Your task to perform on an android device: see tabs open on other devices in the chrome app Image 0: 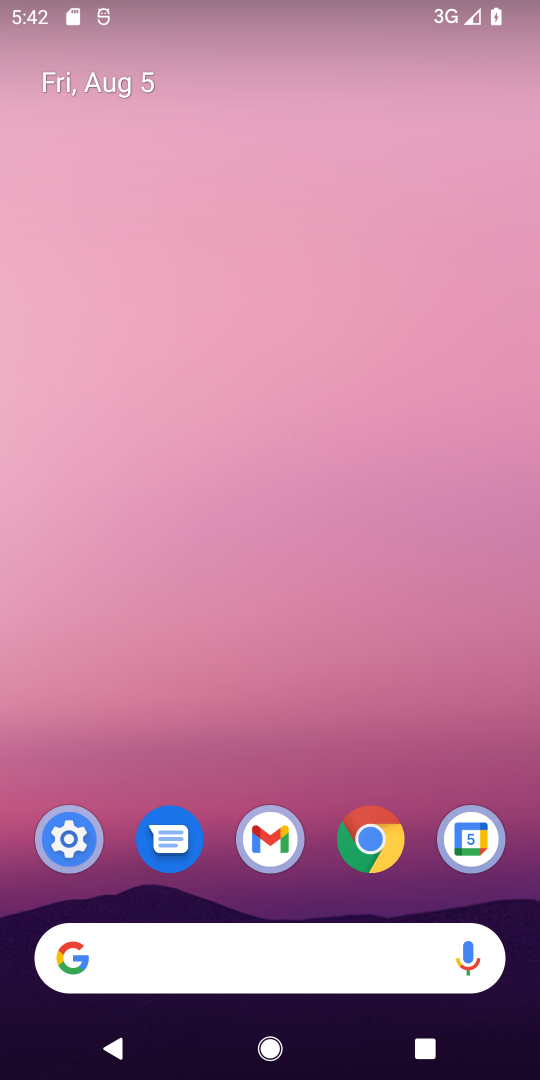
Step 0: click (363, 854)
Your task to perform on an android device: see tabs open on other devices in the chrome app Image 1: 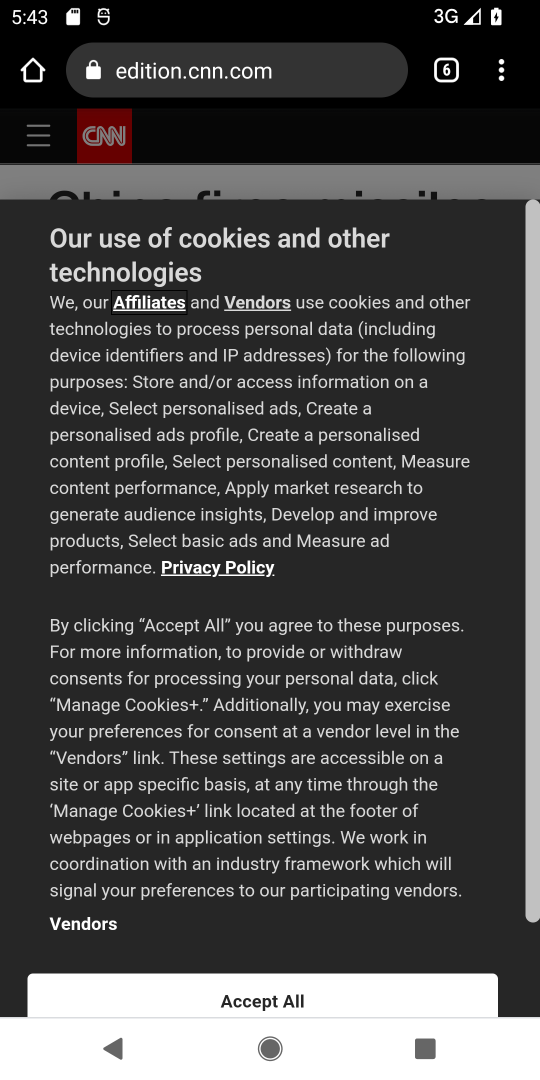
Step 1: click (497, 73)
Your task to perform on an android device: see tabs open on other devices in the chrome app Image 2: 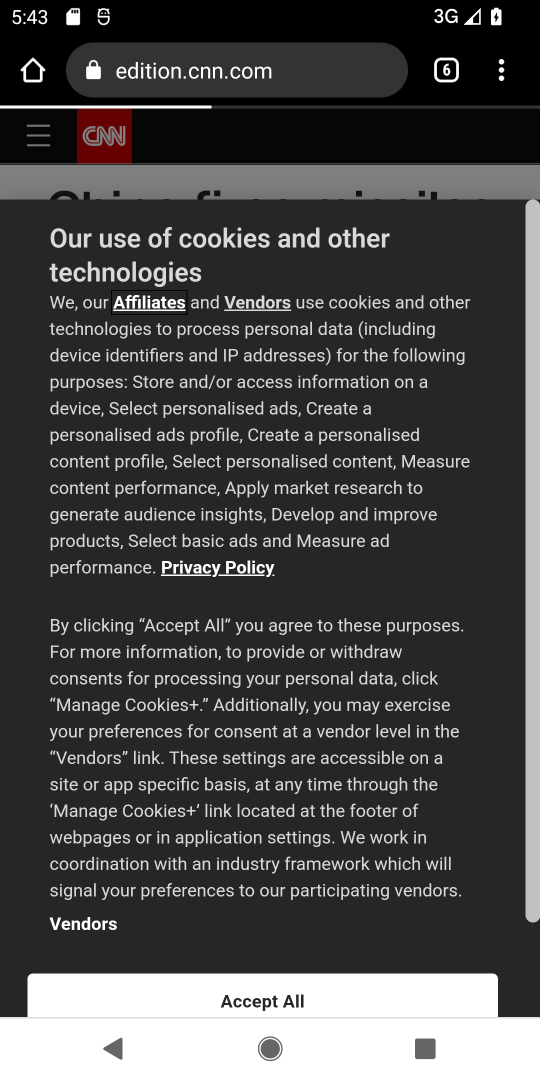
Step 2: task complete